Your task to perform on an android device: Open display settings Image 0: 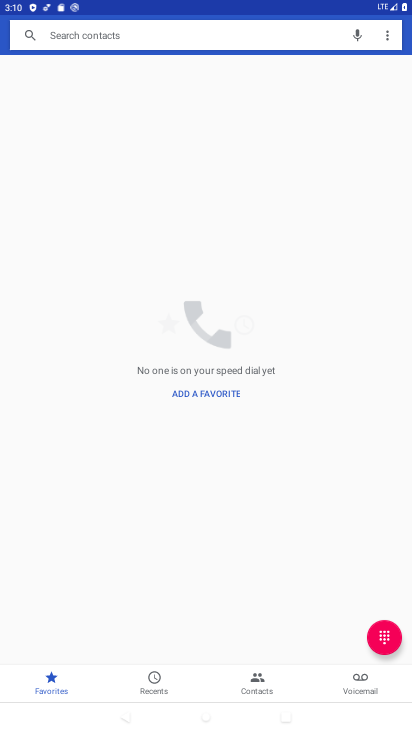
Step 0: press home button
Your task to perform on an android device: Open display settings Image 1: 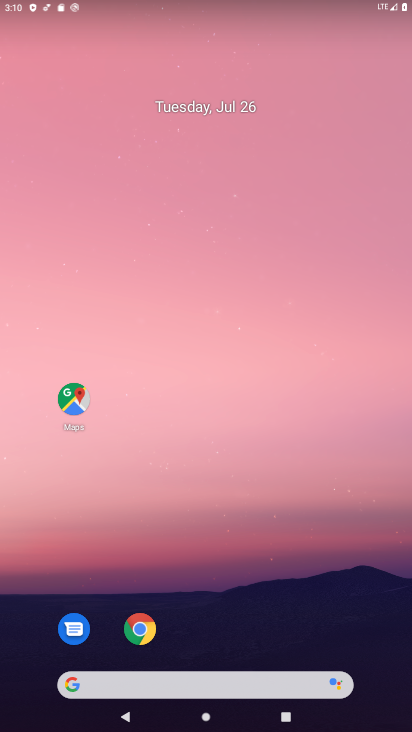
Step 1: drag from (220, 686) to (211, 139)
Your task to perform on an android device: Open display settings Image 2: 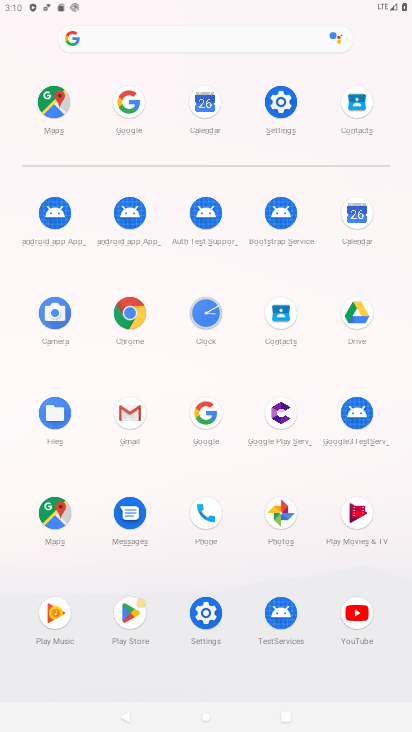
Step 2: click (279, 98)
Your task to perform on an android device: Open display settings Image 3: 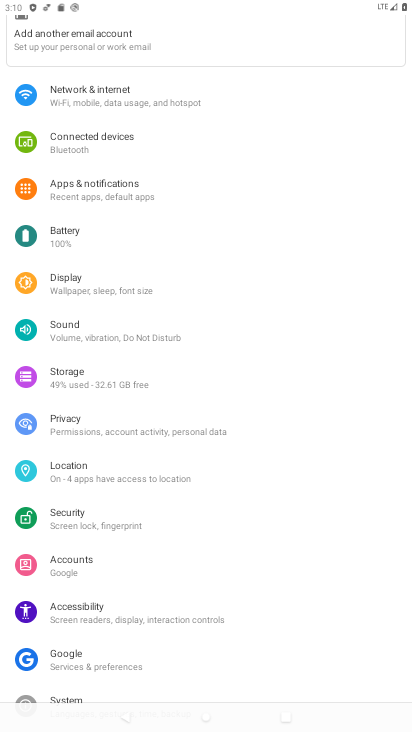
Step 3: click (65, 274)
Your task to perform on an android device: Open display settings Image 4: 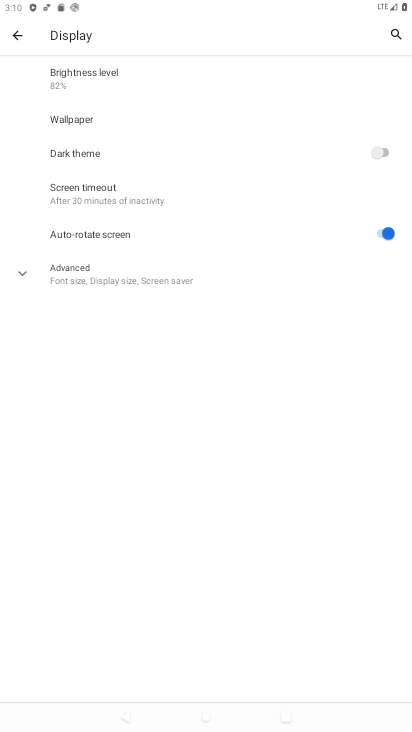
Step 4: task complete